Your task to perform on an android device: make emails show in primary in the gmail app Image 0: 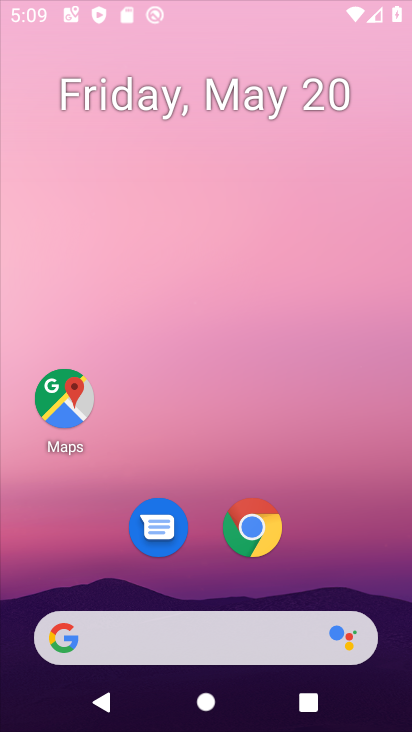
Step 0: press home button
Your task to perform on an android device: make emails show in primary in the gmail app Image 1: 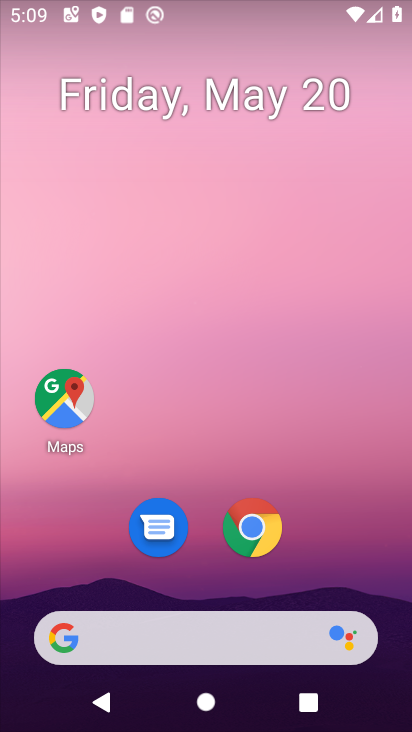
Step 1: drag from (308, 609) to (319, 27)
Your task to perform on an android device: make emails show in primary in the gmail app Image 2: 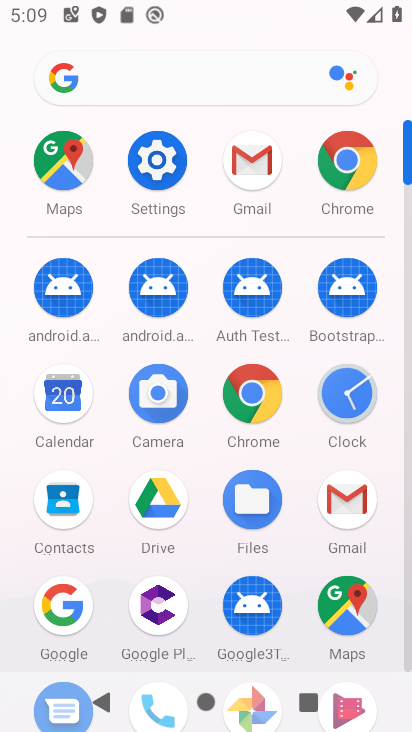
Step 2: click (344, 479)
Your task to perform on an android device: make emails show in primary in the gmail app Image 3: 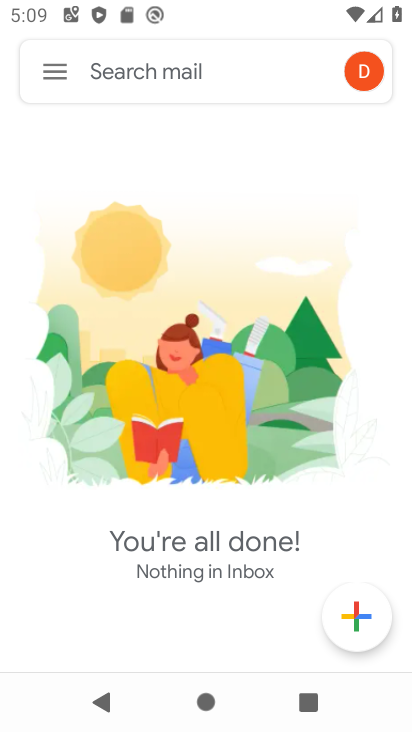
Step 3: click (59, 74)
Your task to perform on an android device: make emails show in primary in the gmail app Image 4: 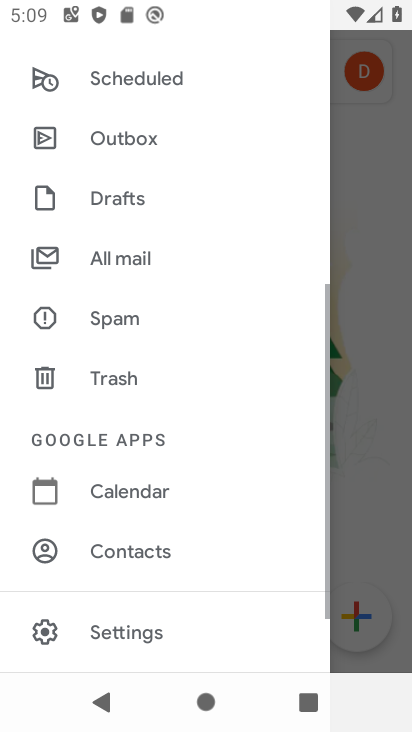
Step 4: drag from (184, 549) to (212, 97)
Your task to perform on an android device: make emails show in primary in the gmail app Image 5: 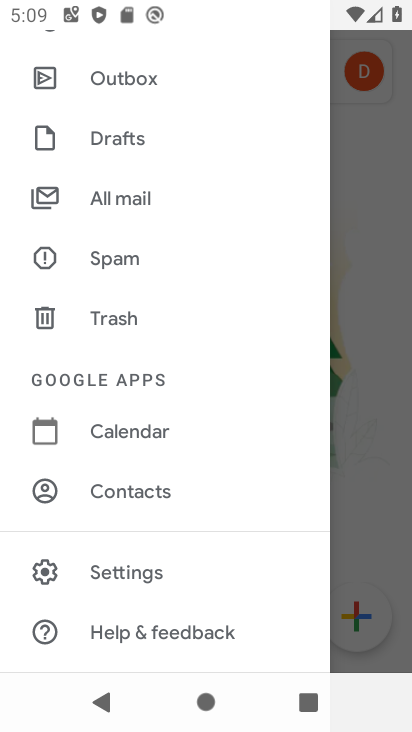
Step 5: click (152, 575)
Your task to perform on an android device: make emails show in primary in the gmail app Image 6: 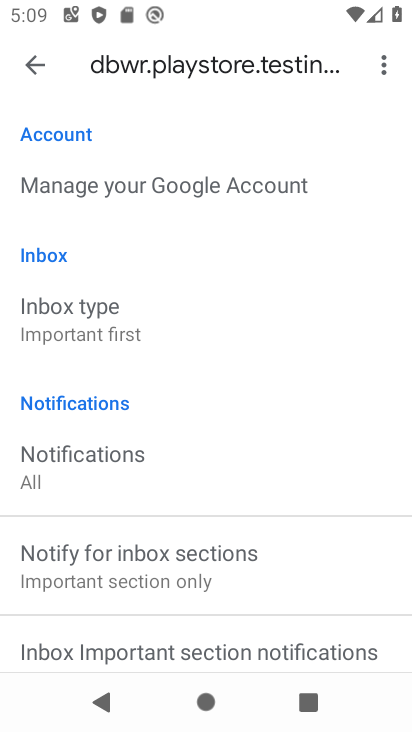
Step 6: click (147, 325)
Your task to perform on an android device: make emails show in primary in the gmail app Image 7: 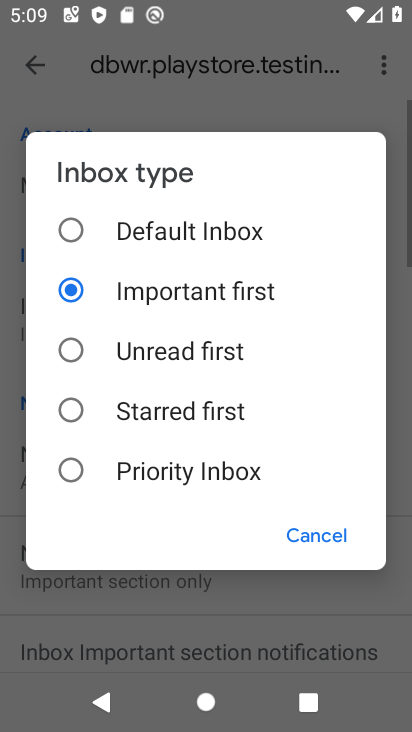
Step 7: click (145, 220)
Your task to perform on an android device: make emails show in primary in the gmail app Image 8: 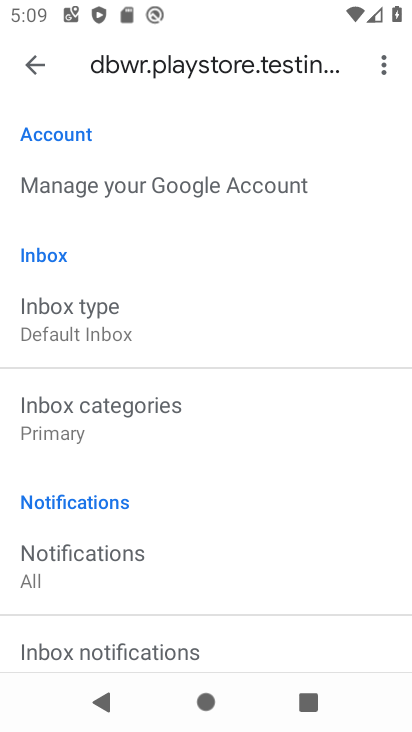
Step 8: press back button
Your task to perform on an android device: make emails show in primary in the gmail app Image 9: 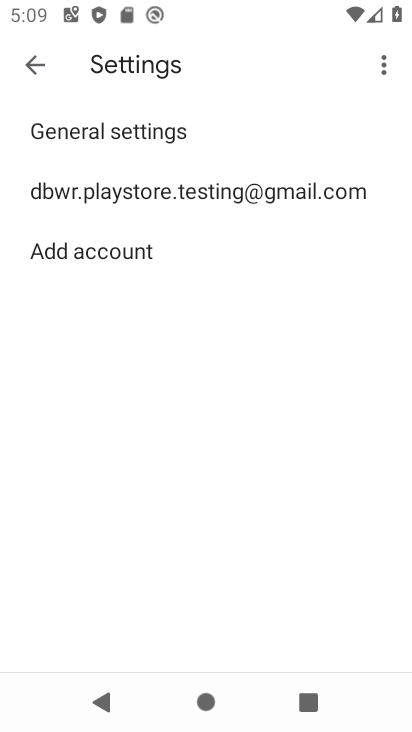
Step 9: press back button
Your task to perform on an android device: make emails show in primary in the gmail app Image 10: 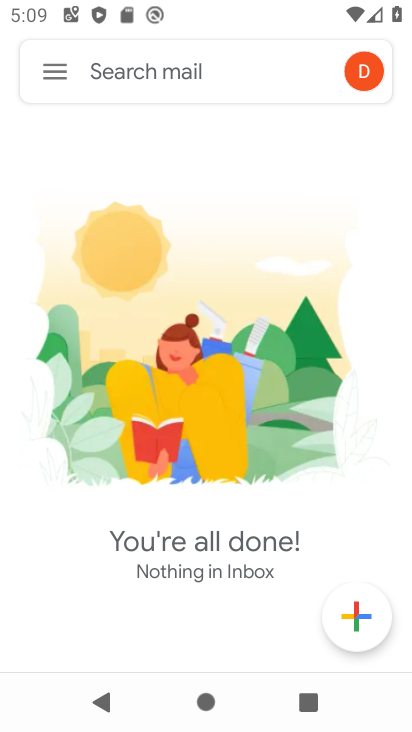
Step 10: drag from (200, 123) to (242, 719)
Your task to perform on an android device: make emails show in primary in the gmail app Image 11: 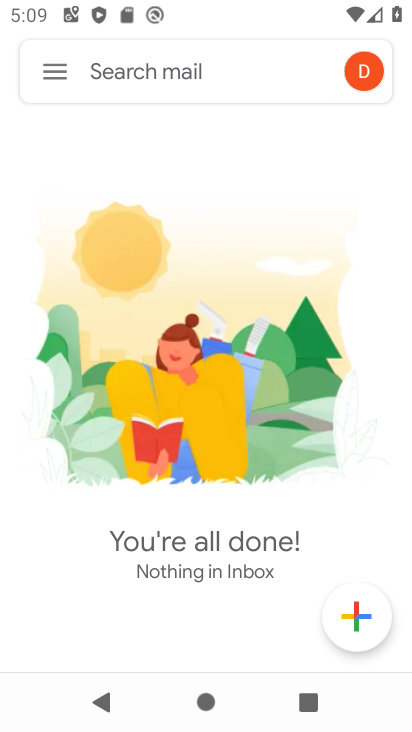
Step 11: click (59, 72)
Your task to perform on an android device: make emails show in primary in the gmail app Image 12: 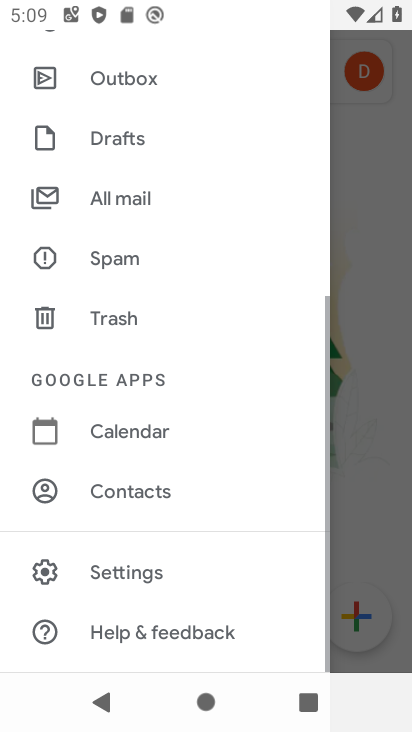
Step 12: task complete